Your task to perform on an android device: Go to sound settings Image 0: 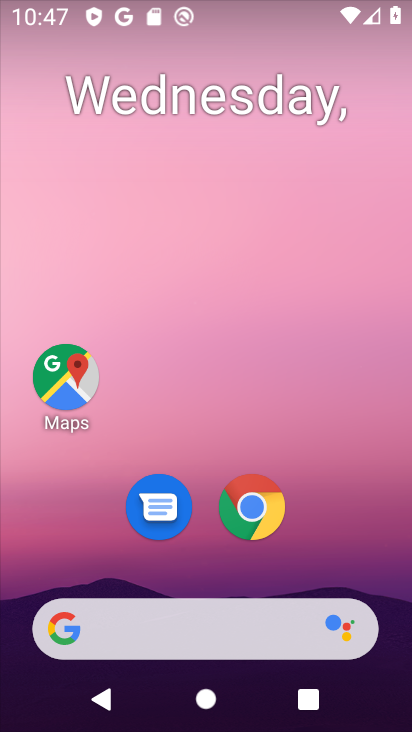
Step 0: drag from (219, 724) to (210, 132)
Your task to perform on an android device: Go to sound settings Image 1: 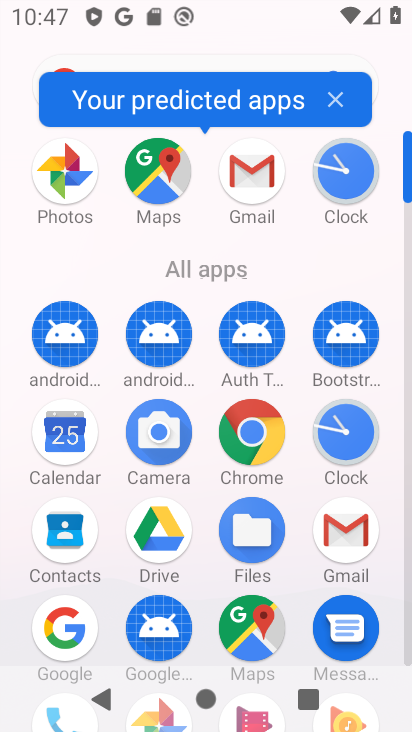
Step 1: drag from (205, 628) to (208, 214)
Your task to perform on an android device: Go to sound settings Image 2: 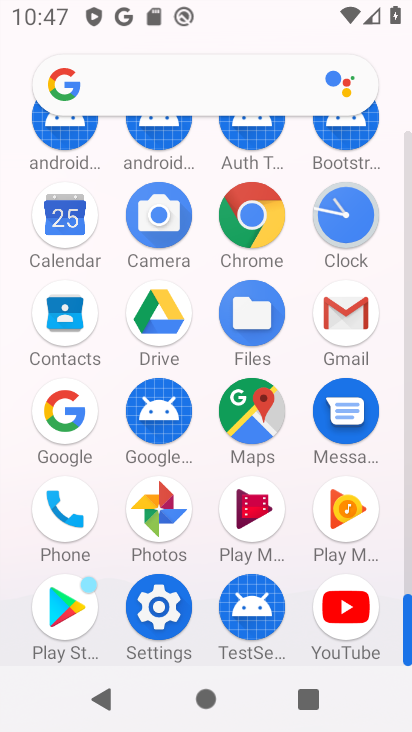
Step 2: click (148, 612)
Your task to perform on an android device: Go to sound settings Image 3: 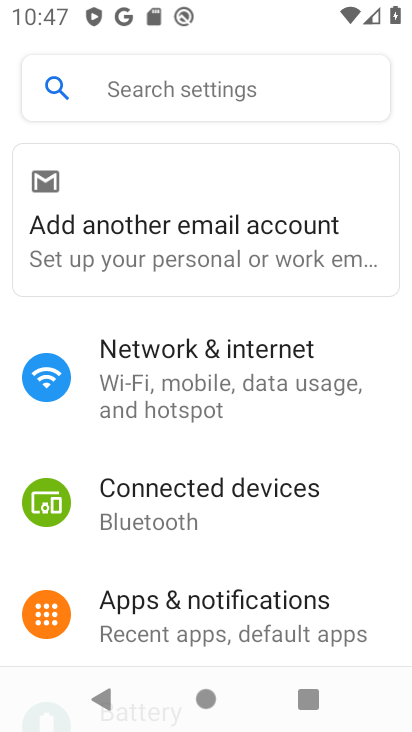
Step 3: drag from (224, 631) to (229, 251)
Your task to perform on an android device: Go to sound settings Image 4: 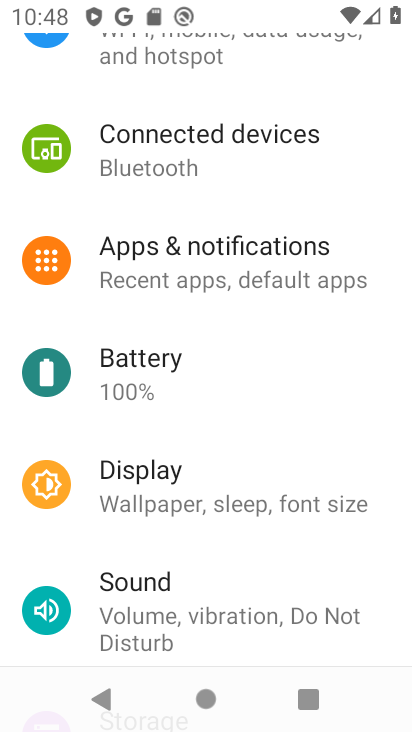
Step 4: click (149, 584)
Your task to perform on an android device: Go to sound settings Image 5: 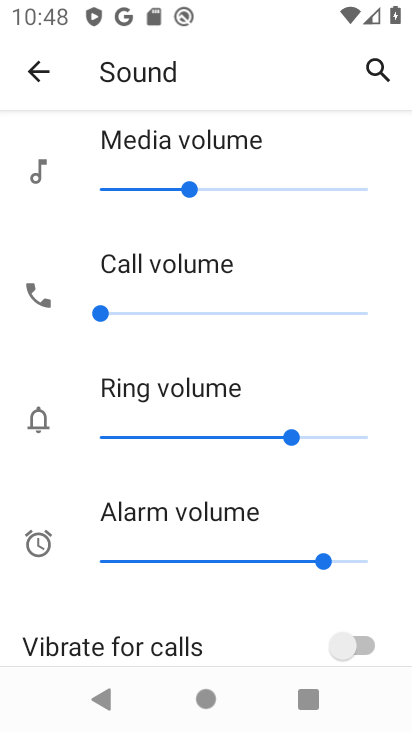
Step 5: task complete